Your task to perform on an android device: turn on data saver in the chrome app Image 0: 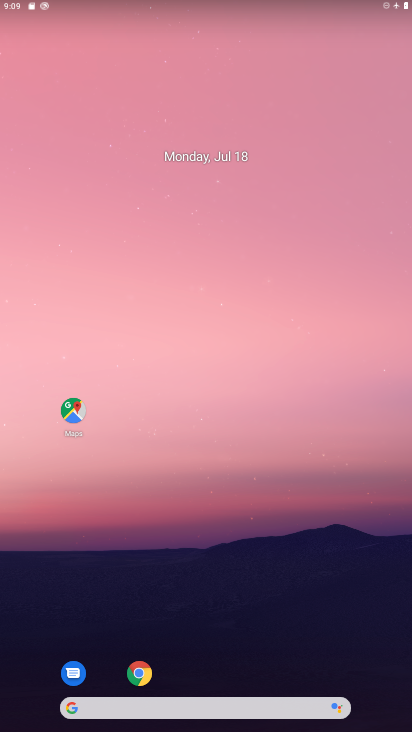
Step 0: press home button
Your task to perform on an android device: turn on data saver in the chrome app Image 1: 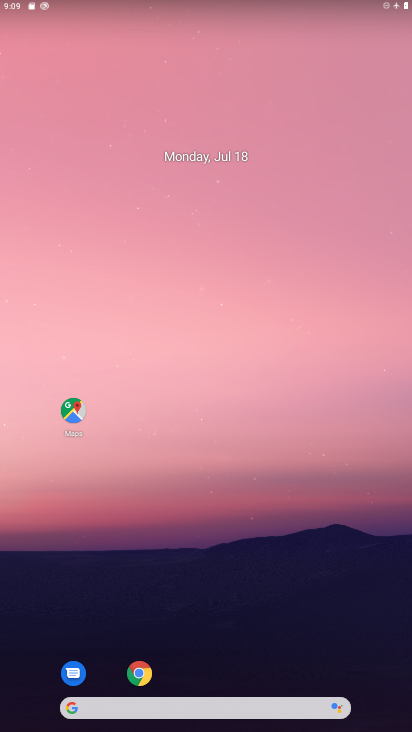
Step 1: drag from (219, 678) to (204, 38)
Your task to perform on an android device: turn on data saver in the chrome app Image 2: 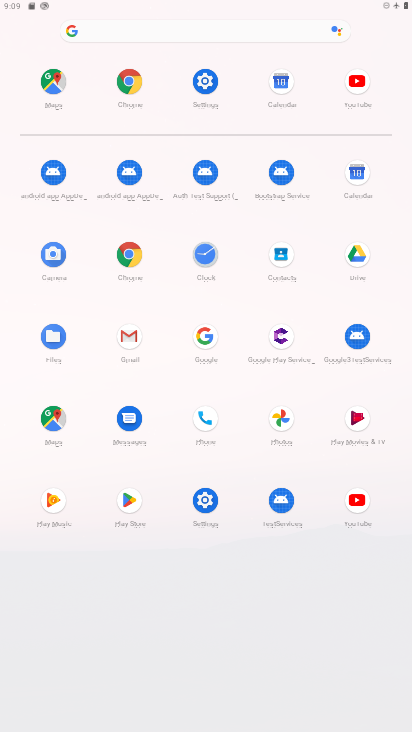
Step 2: click (133, 78)
Your task to perform on an android device: turn on data saver in the chrome app Image 3: 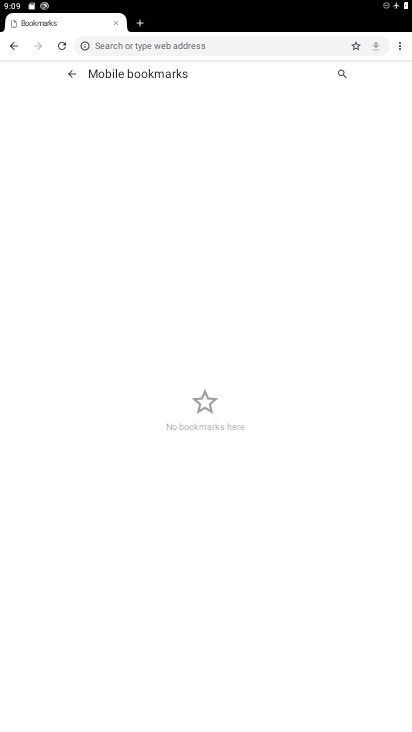
Step 3: drag from (404, 48) to (317, 211)
Your task to perform on an android device: turn on data saver in the chrome app Image 4: 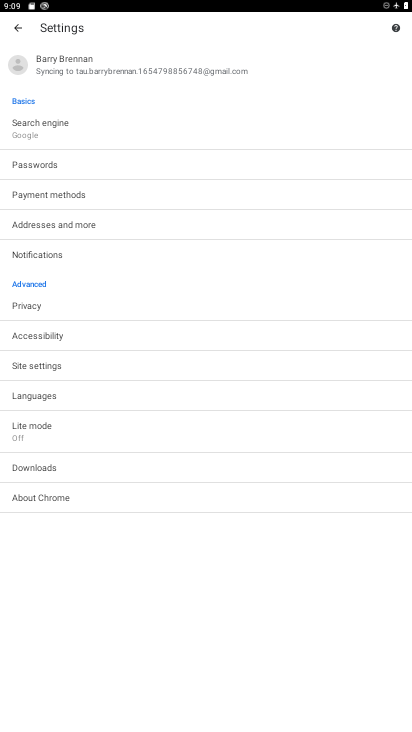
Step 4: click (49, 439)
Your task to perform on an android device: turn on data saver in the chrome app Image 5: 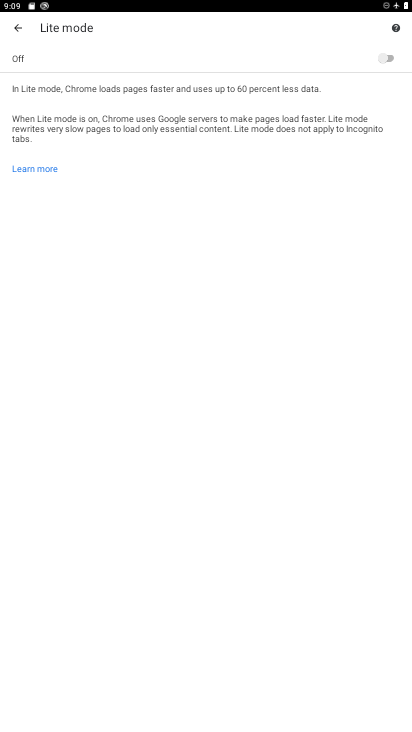
Step 5: click (382, 51)
Your task to perform on an android device: turn on data saver in the chrome app Image 6: 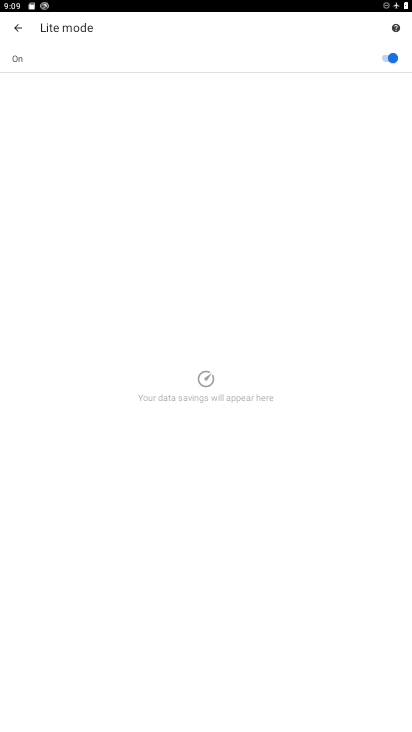
Step 6: task complete